Your task to perform on an android device: Show me productivity apps on the Play Store Image 0: 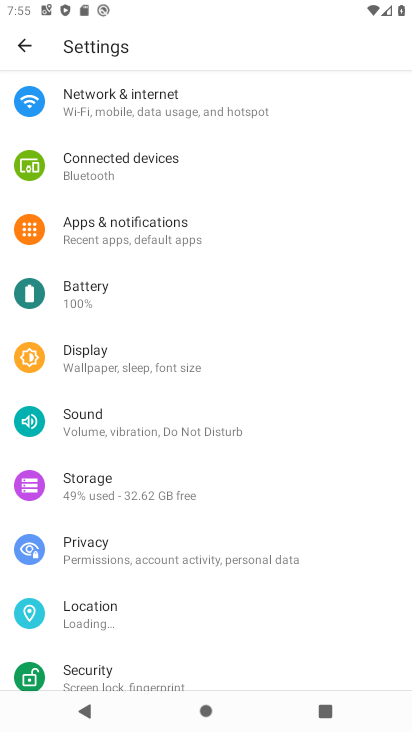
Step 0: press home button
Your task to perform on an android device: Show me productivity apps on the Play Store Image 1: 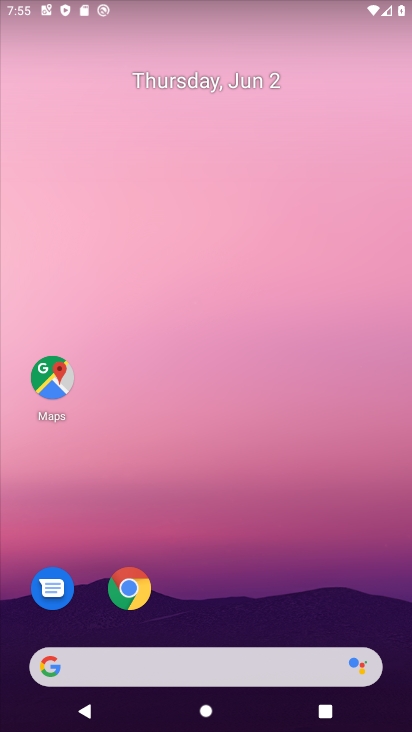
Step 1: drag from (231, 559) to (231, 105)
Your task to perform on an android device: Show me productivity apps on the Play Store Image 2: 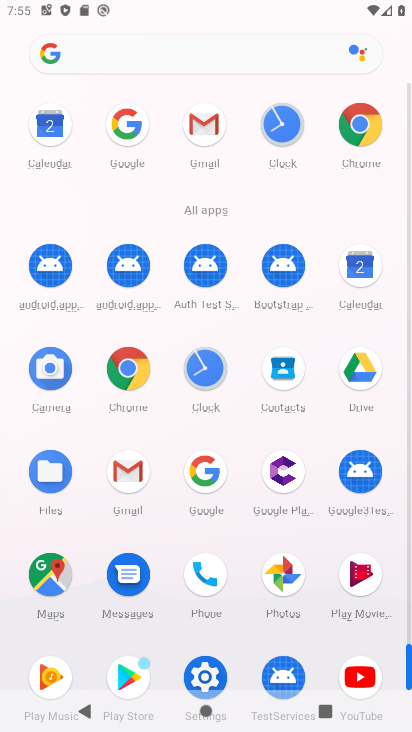
Step 2: drag from (198, 525) to (245, 196)
Your task to perform on an android device: Show me productivity apps on the Play Store Image 3: 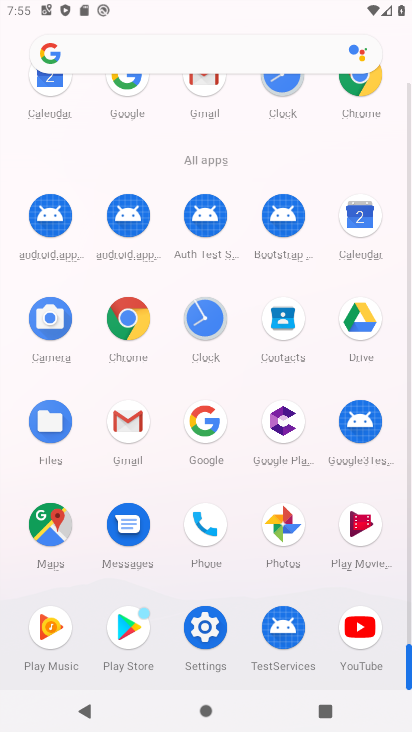
Step 3: drag from (256, 474) to (289, 185)
Your task to perform on an android device: Show me productivity apps on the Play Store Image 4: 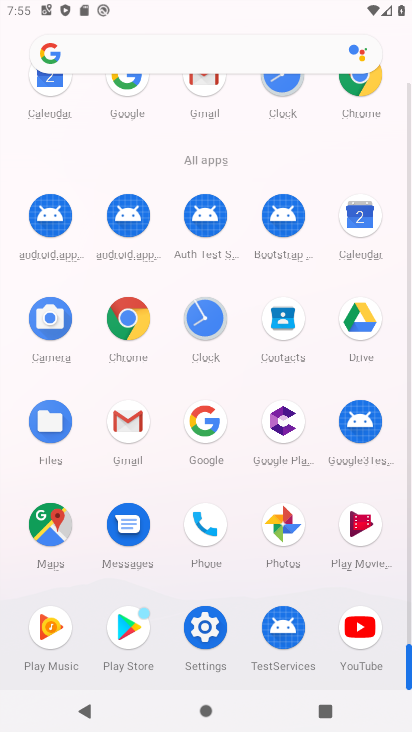
Step 4: click (120, 615)
Your task to perform on an android device: Show me productivity apps on the Play Store Image 5: 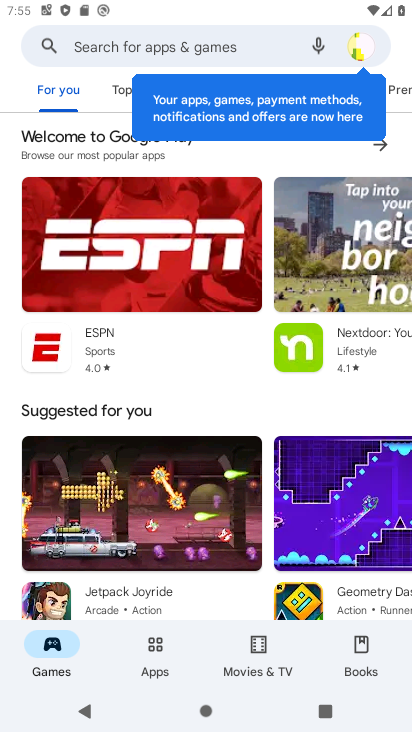
Step 5: click (157, 44)
Your task to perform on an android device: Show me productivity apps on the Play Store Image 6: 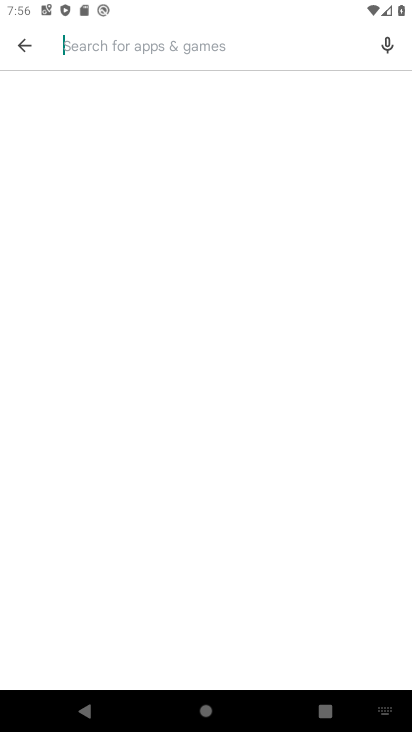
Step 6: type "productivity aaps"
Your task to perform on an android device: Show me productivity apps on the Play Store Image 7: 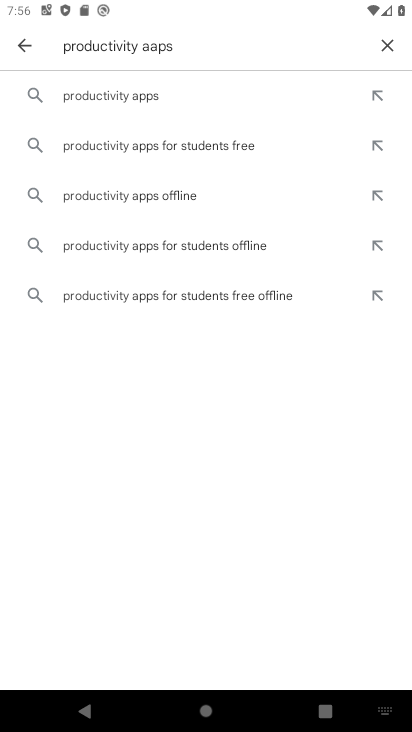
Step 7: click (190, 101)
Your task to perform on an android device: Show me productivity apps on the Play Store Image 8: 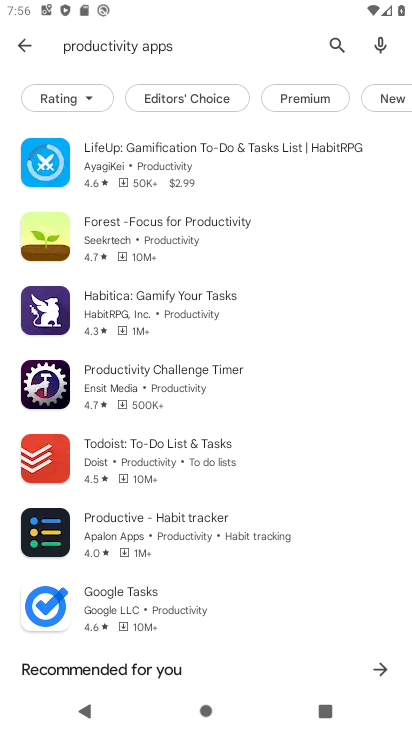
Step 8: task complete